Your task to perform on an android device: Open Google Maps and go to "Timeline" Image 0: 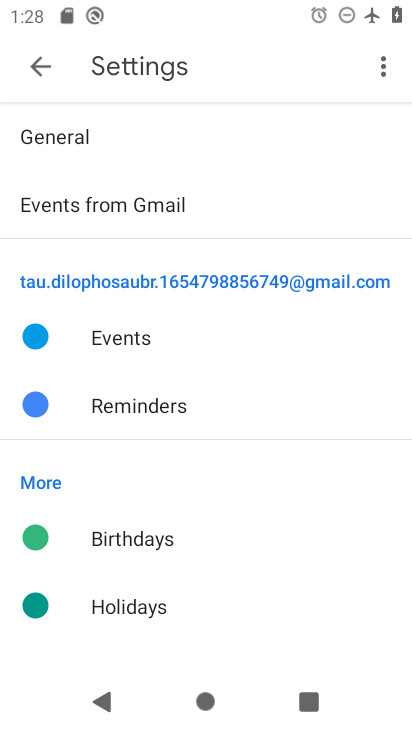
Step 0: press home button
Your task to perform on an android device: Open Google Maps and go to "Timeline" Image 1: 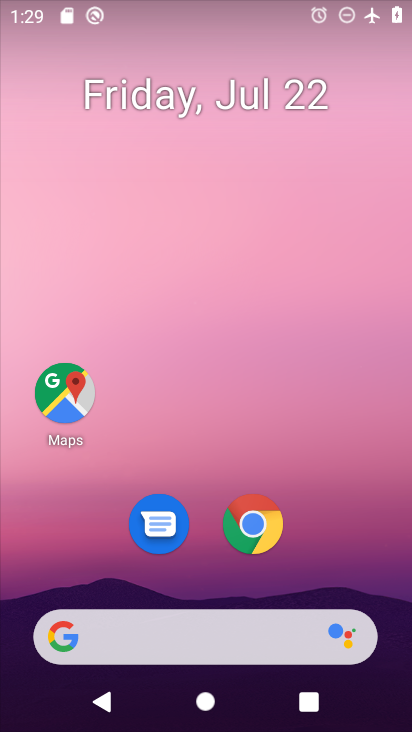
Step 1: click (66, 399)
Your task to perform on an android device: Open Google Maps and go to "Timeline" Image 2: 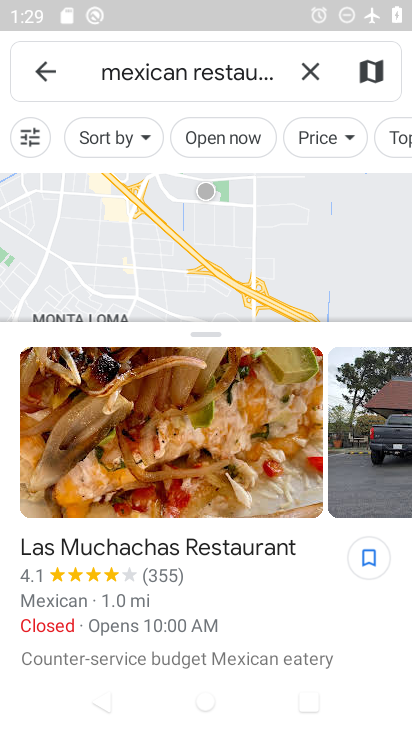
Step 2: click (51, 67)
Your task to perform on an android device: Open Google Maps and go to "Timeline" Image 3: 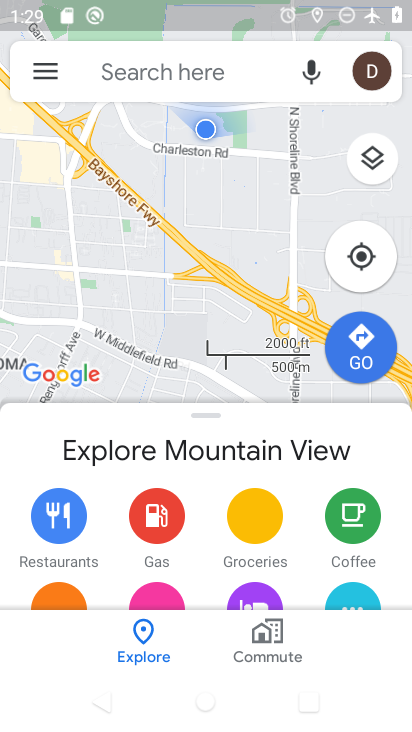
Step 3: click (51, 67)
Your task to perform on an android device: Open Google Maps and go to "Timeline" Image 4: 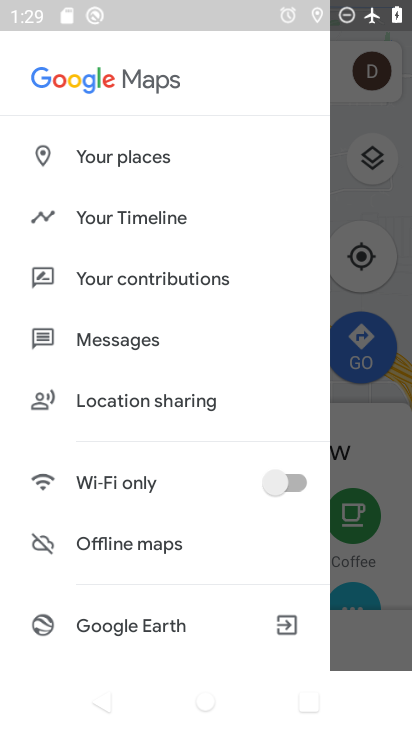
Step 4: click (128, 212)
Your task to perform on an android device: Open Google Maps and go to "Timeline" Image 5: 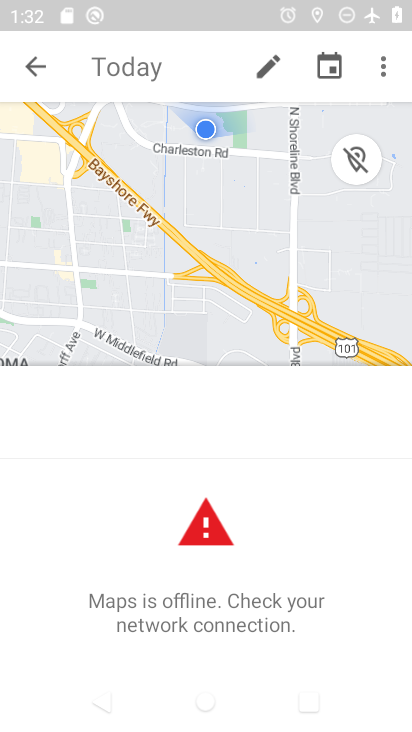
Step 5: task complete